Your task to perform on an android device: Open CNN.com Image 0: 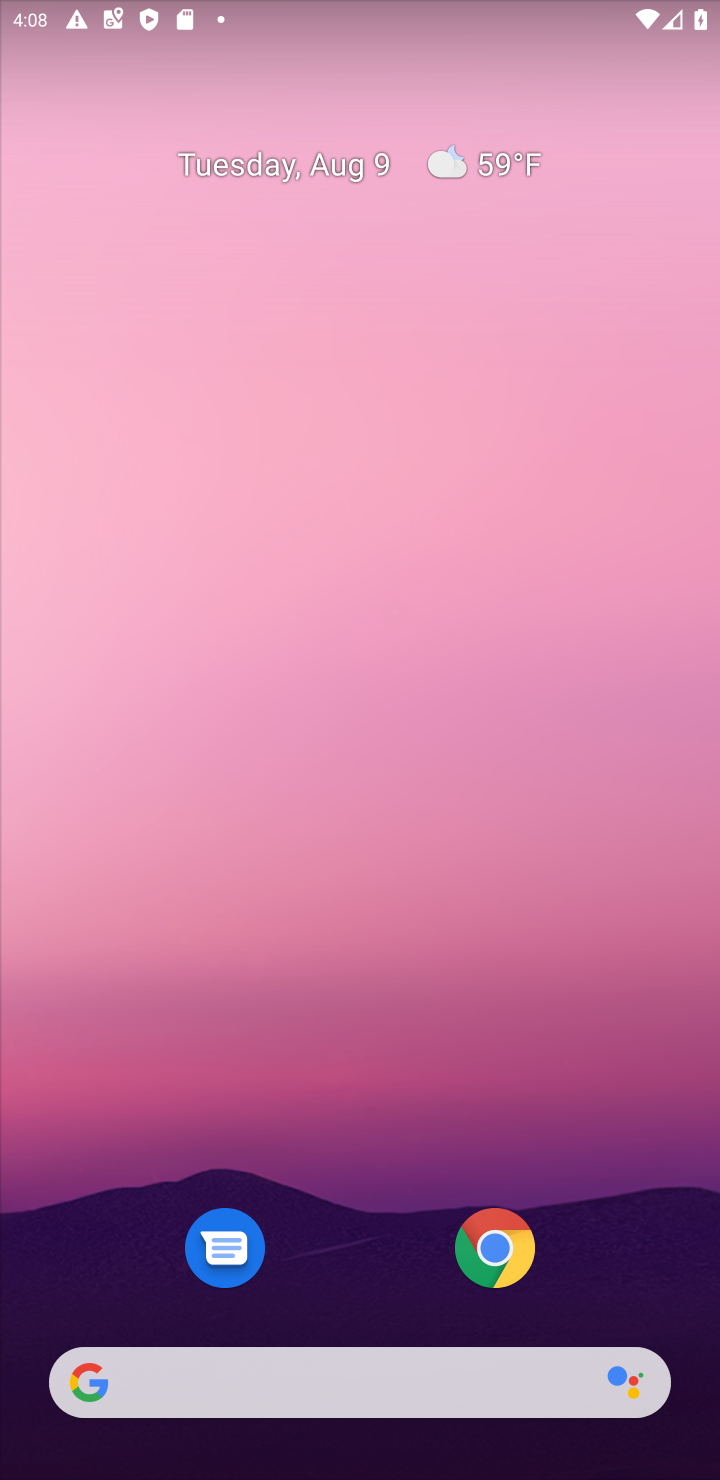
Step 0: drag from (322, 1259) to (267, 231)
Your task to perform on an android device: Open CNN.com Image 1: 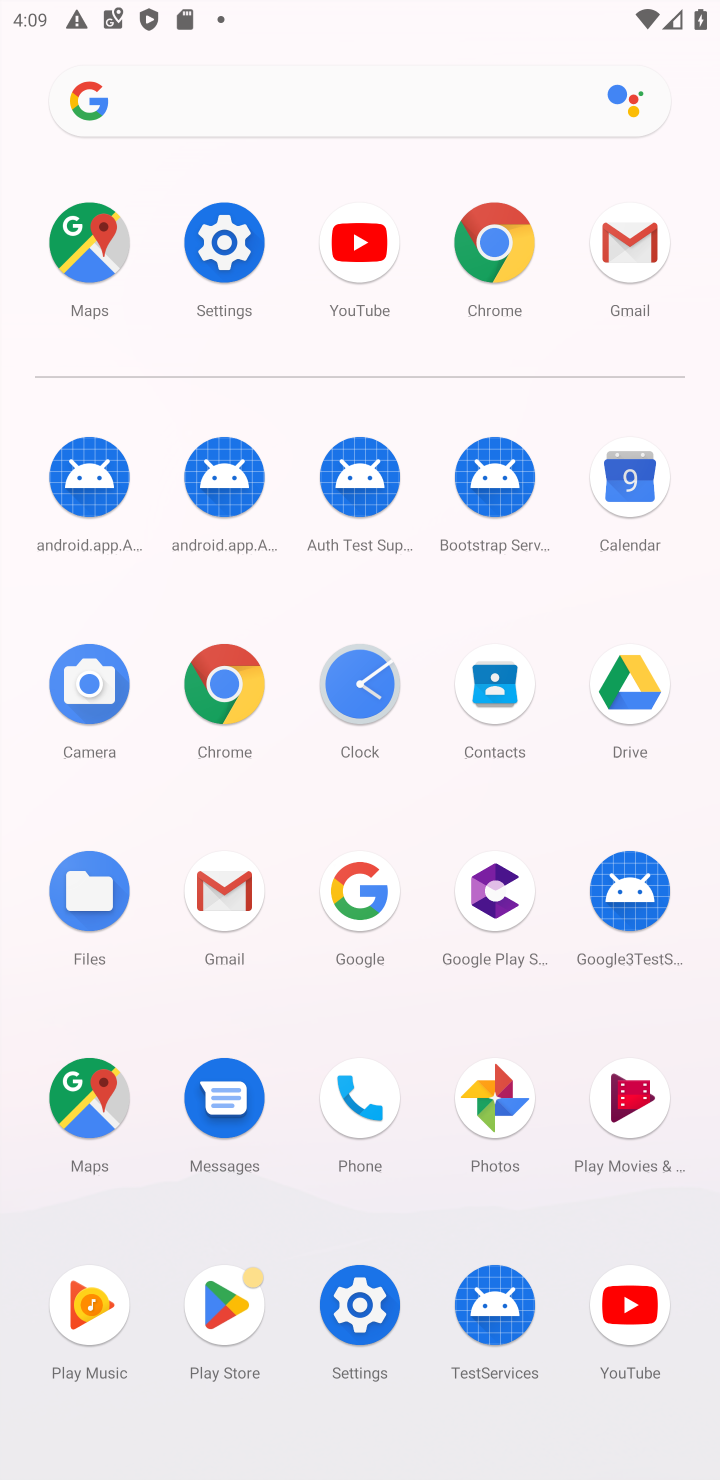
Step 1: click (247, 671)
Your task to perform on an android device: Open CNN.com Image 2: 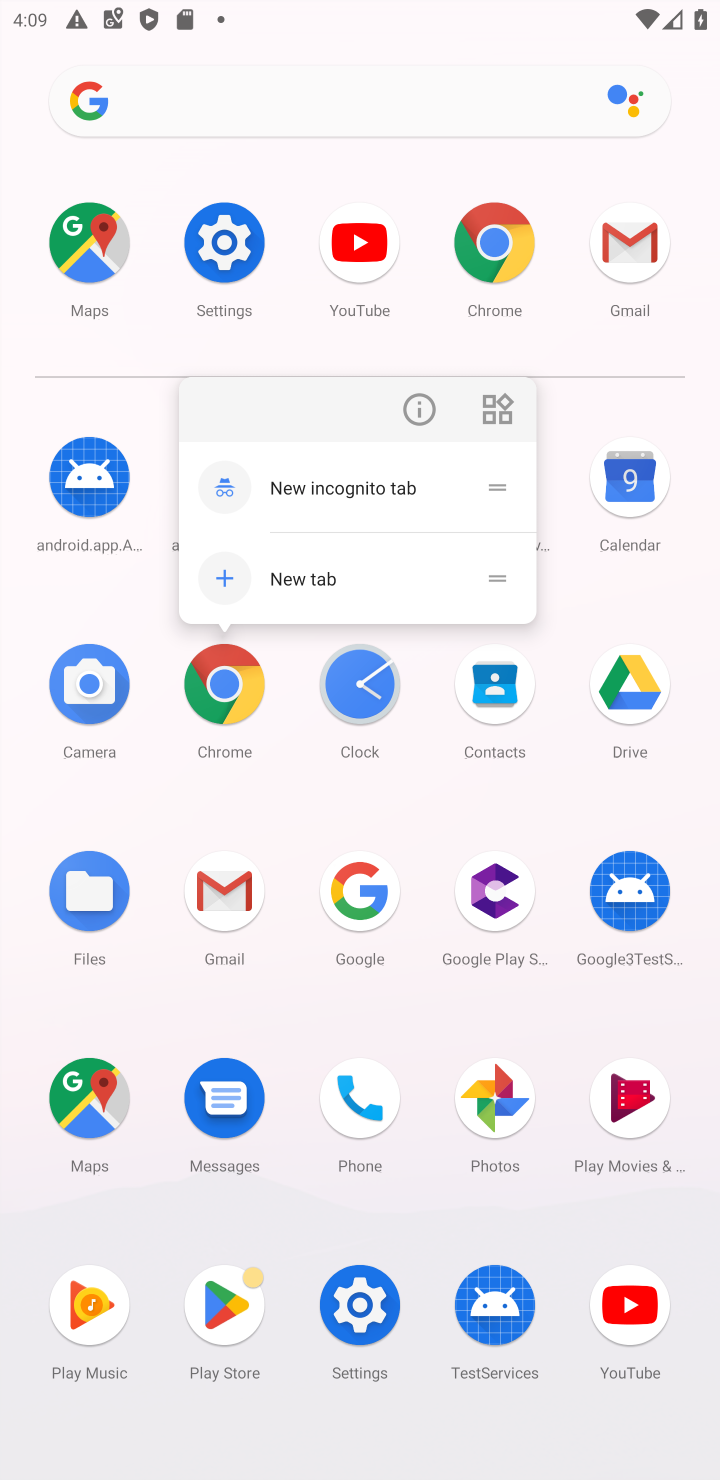
Step 2: click (224, 678)
Your task to perform on an android device: Open CNN.com Image 3: 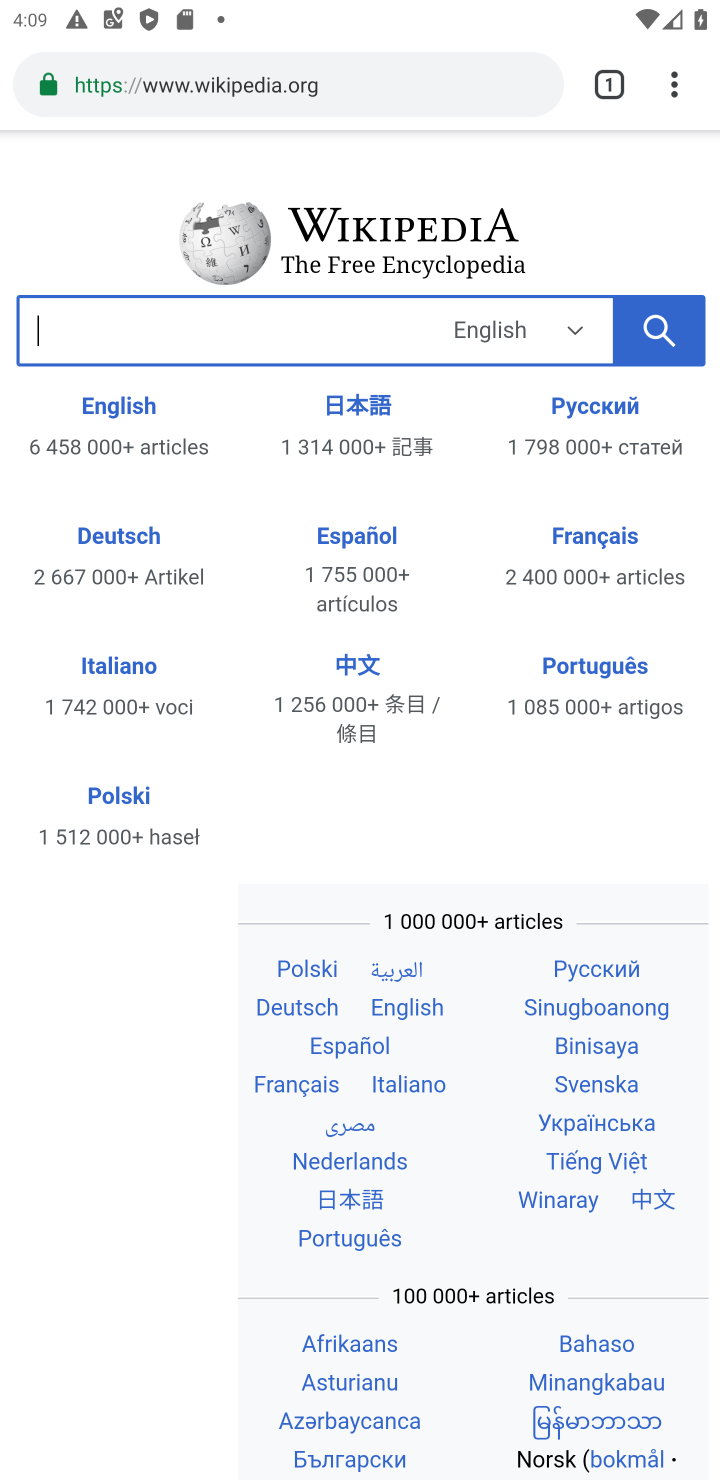
Step 3: click (275, 74)
Your task to perform on an android device: Open CNN.com Image 4: 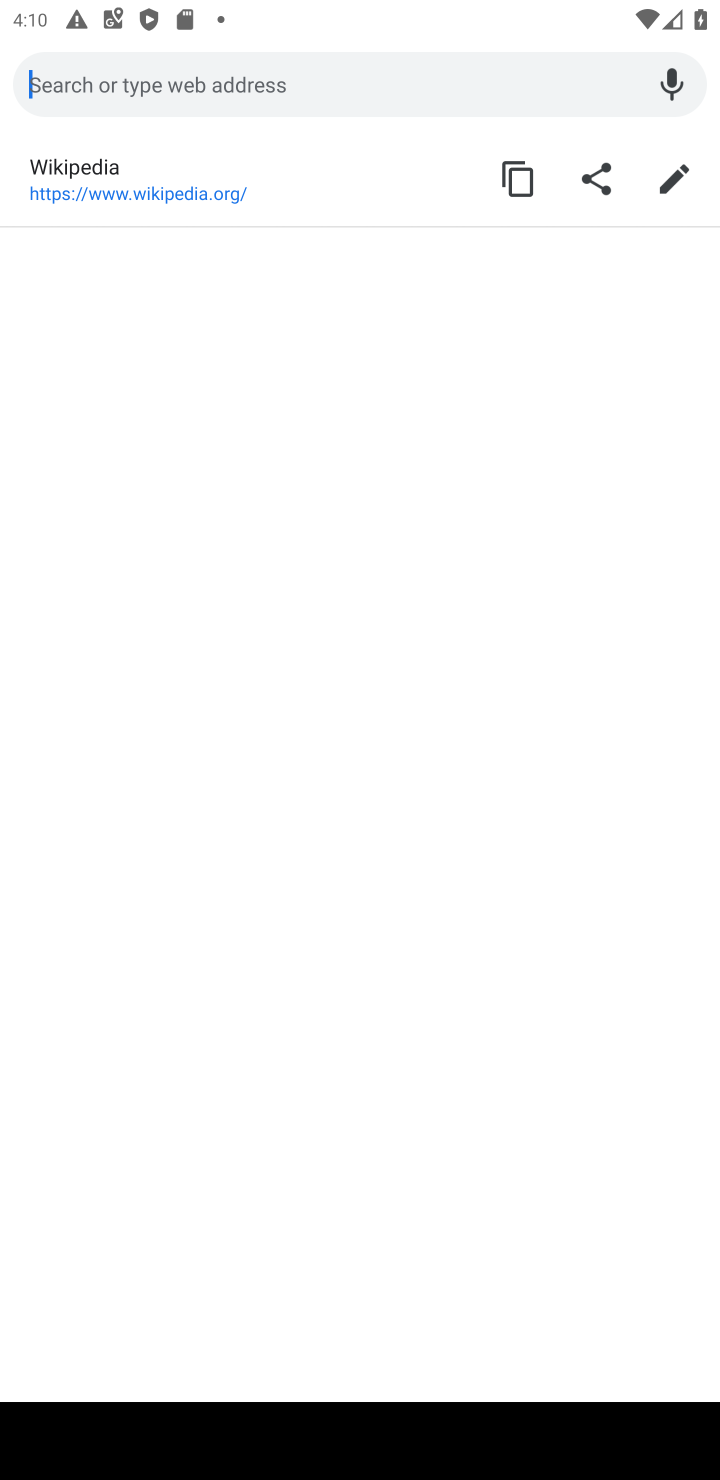
Step 4: type "CNN.com"
Your task to perform on an android device: Open CNN.com Image 5: 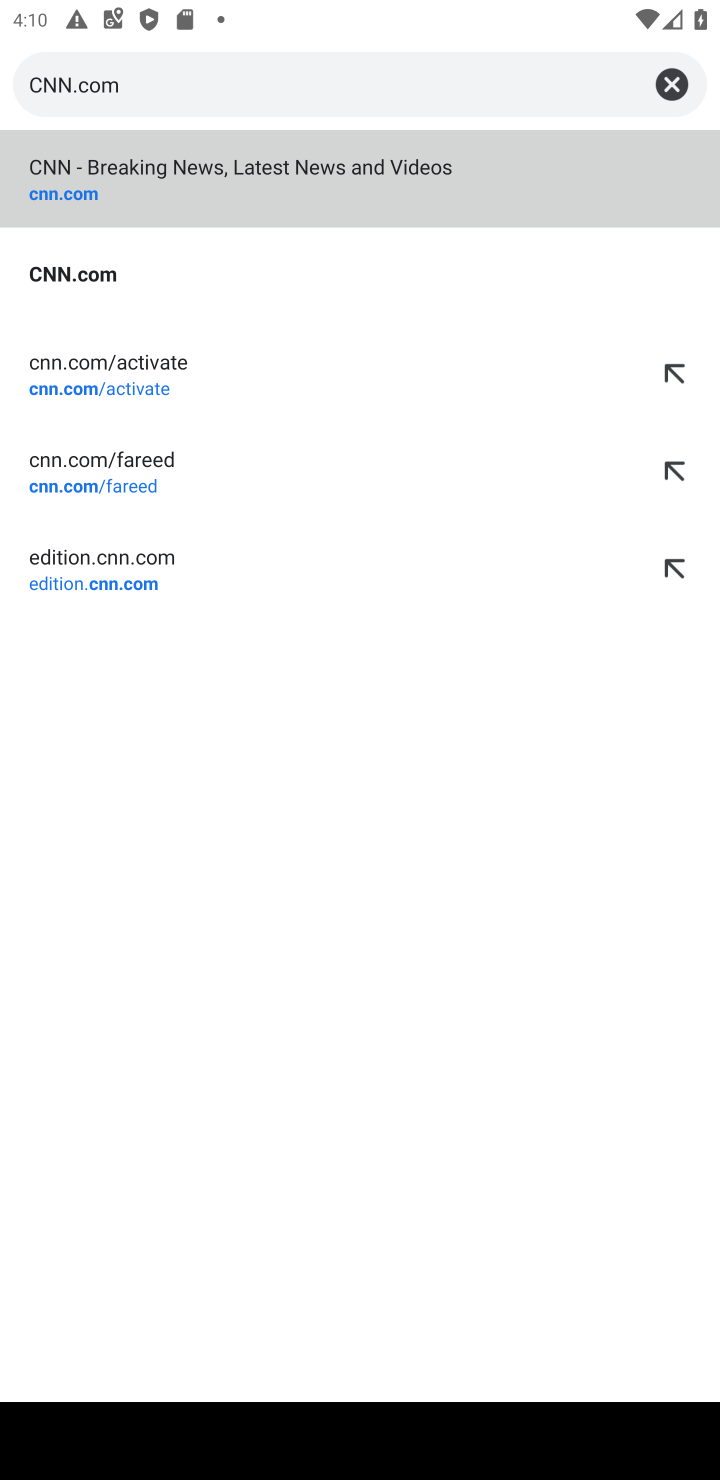
Step 5: click (374, 166)
Your task to perform on an android device: Open CNN.com Image 6: 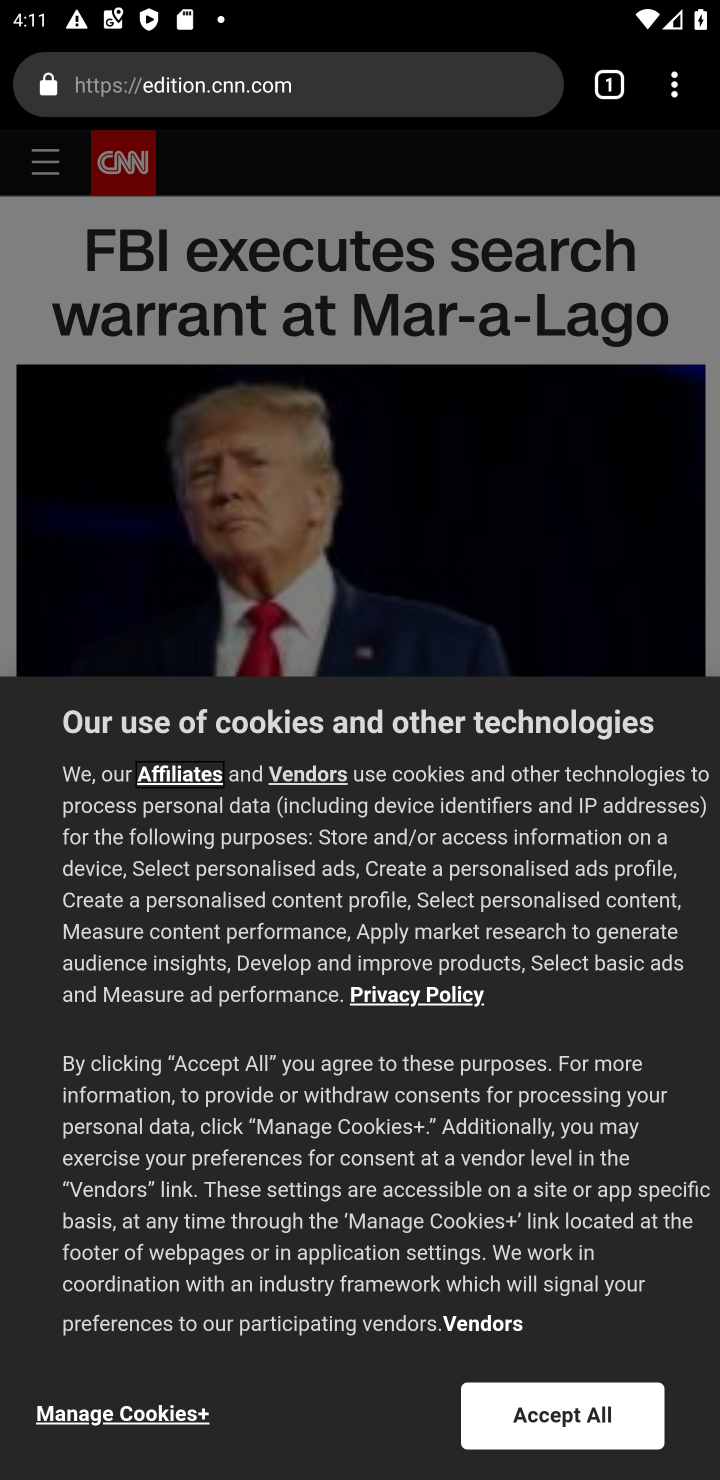
Step 6: task complete